Your task to perform on an android device: Go to notification settings Image 0: 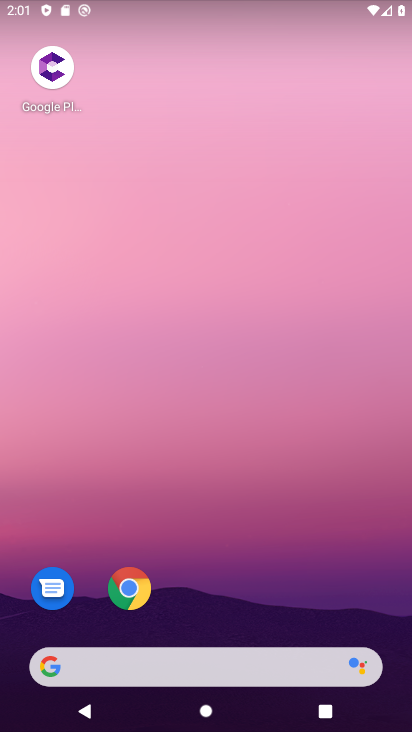
Step 0: drag from (243, 675) to (403, 122)
Your task to perform on an android device: Go to notification settings Image 1: 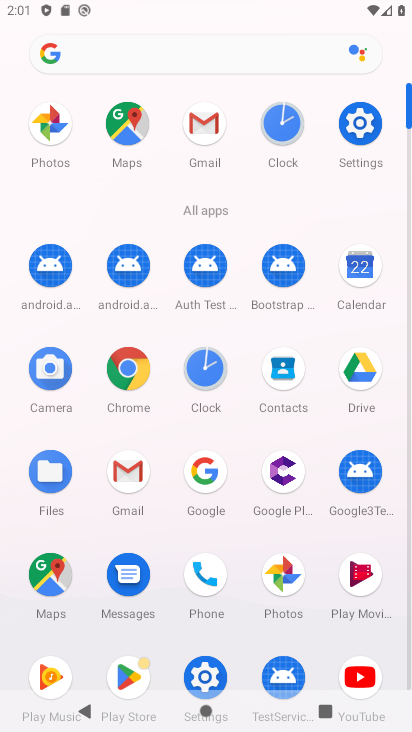
Step 1: click (360, 145)
Your task to perform on an android device: Go to notification settings Image 2: 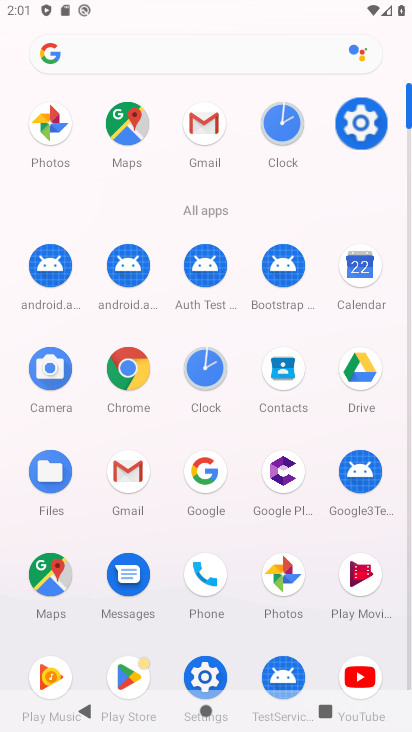
Step 2: click (360, 145)
Your task to perform on an android device: Go to notification settings Image 3: 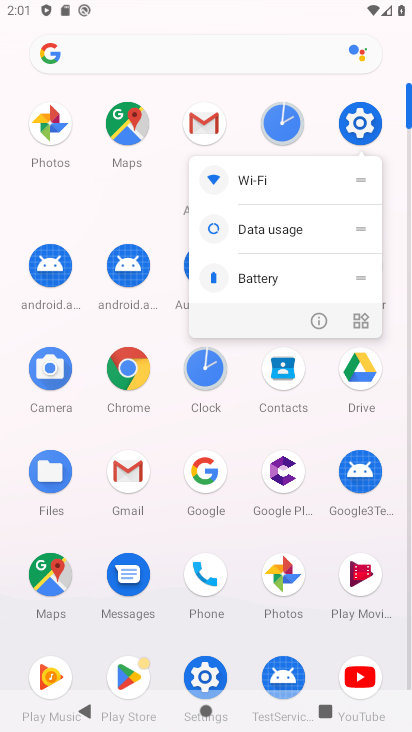
Step 3: click (109, 196)
Your task to perform on an android device: Go to notification settings Image 4: 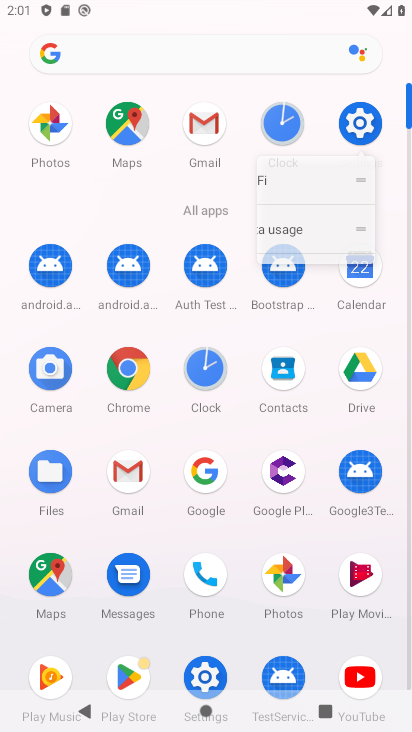
Step 4: click (109, 196)
Your task to perform on an android device: Go to notification settings Image 5: 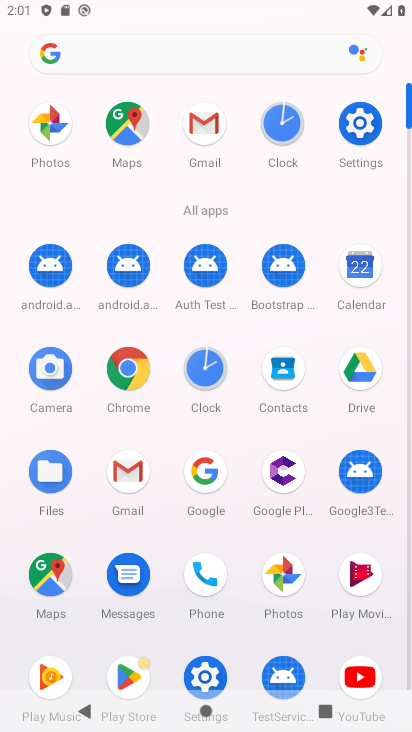
Step 5: click (106, 197)
Your task to perform on an android device: Go to notification settings Image 6: 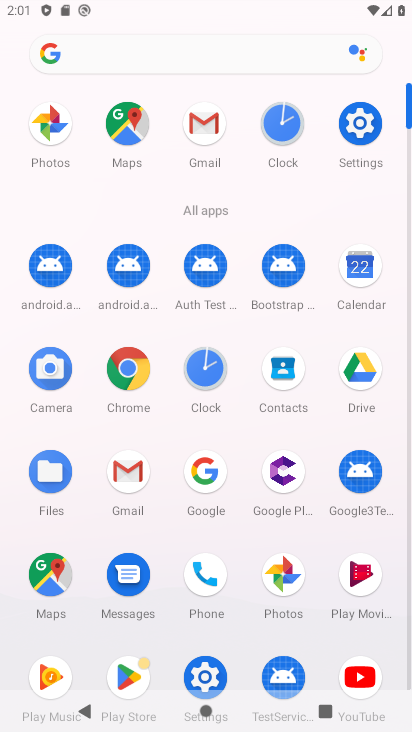
Step 6: click (360, 125)
Your task to perform on an android device: Go to notification settings Image 7: 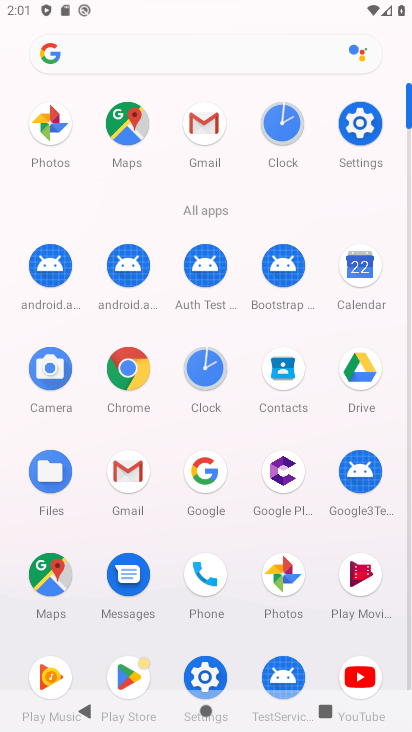
Step 7: click (360, 124)
Your task to perform on an android device: Go to notification settings Image 8: 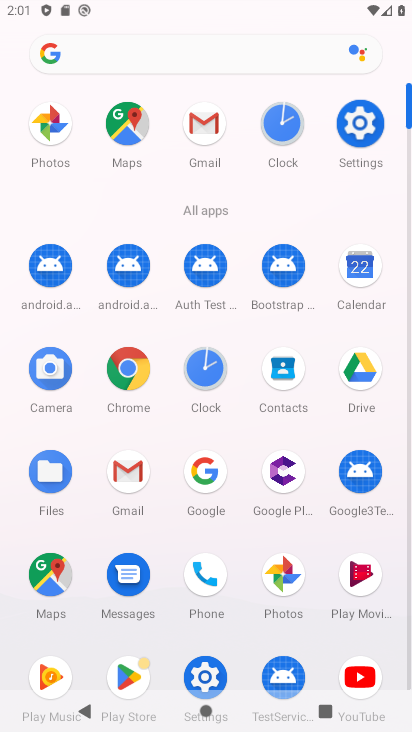
Step 8: click (360, 123)
Your task to perform on an android device: Go to notification settings Image 9: 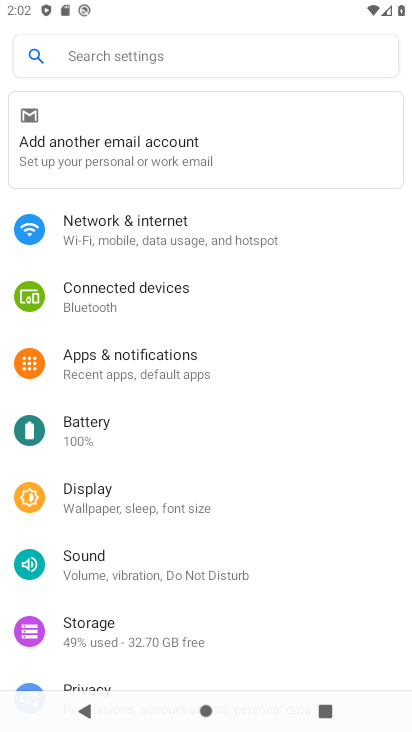
Step 9: click (150, 372)
Your task to perform on an android device: Go to notification settings Image 10: 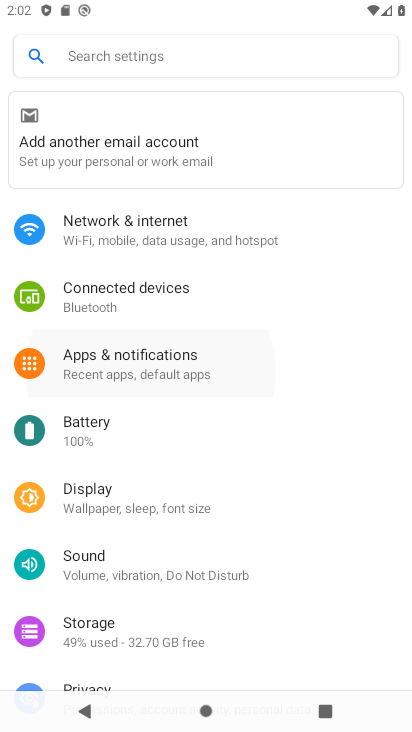
Step 10: click (149, 371)
Your task to perform on an android device: Go to notification settings Image 11: 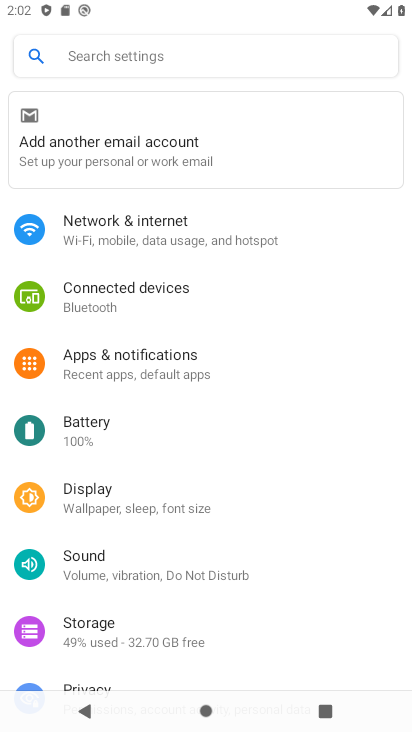
Step 11: click (131, 346)
Your task to perform on an android device: Go to notification settings Image 12: 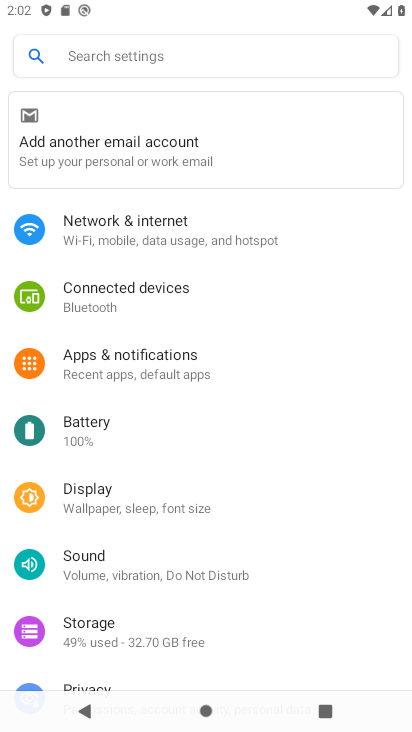
Step 12: click (131, 346)
Your task to perform on an android device: Go to notification settings Image 13: 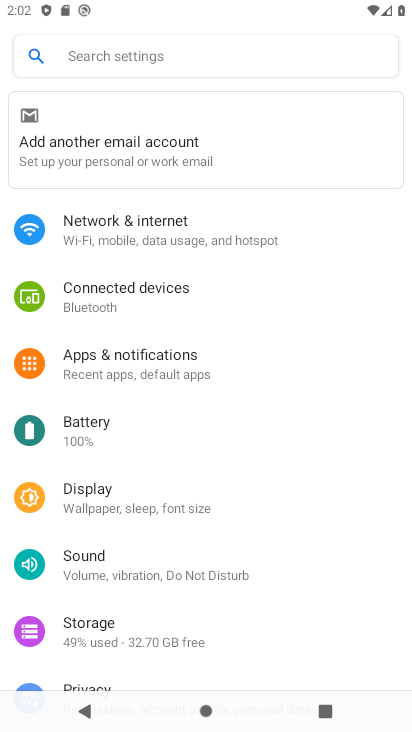
Step 13: click (131, 346)
Your task to perform on an android device: Go to notification settings Image 14: 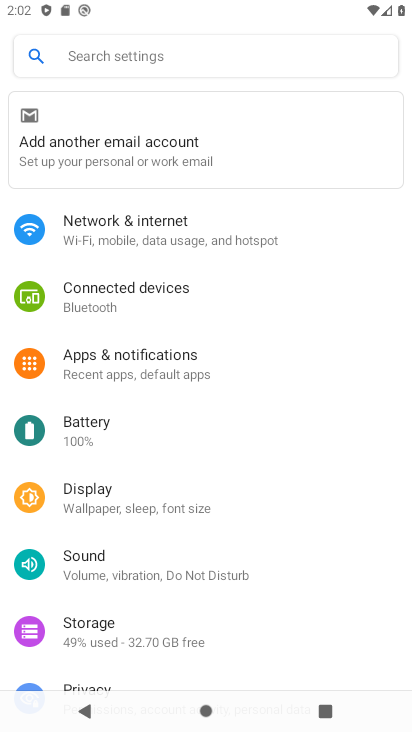
Step 14: click (131, 346)
Your task to perform on an android device: Go to notification settings Image 15: 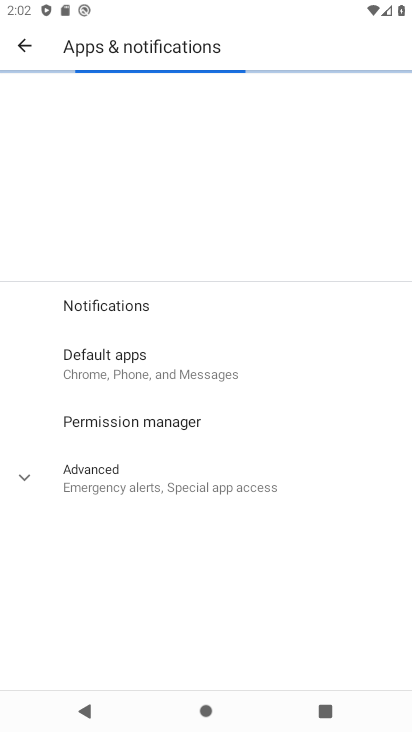
Step 15: click (131, 346)
Your task to perform on an android device: Go to notification settings Image 16: 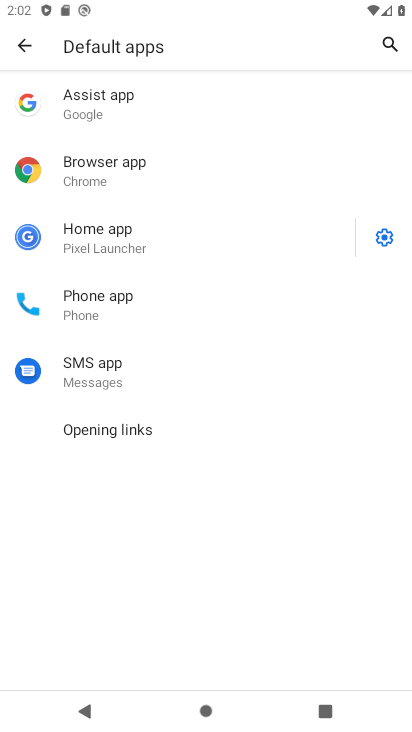
Step 16: click (18, 44)
Your task to perform on an android device: Go to notification settings Image 17: 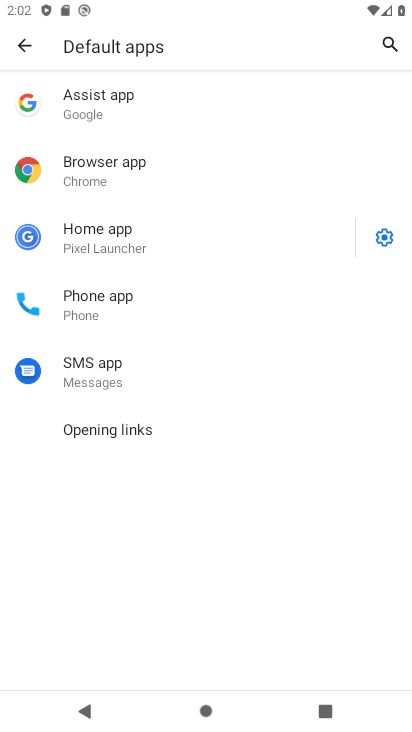
Step 17: click (23, 42)
Your task to perform on an android device: Go to notification settings Image 18: 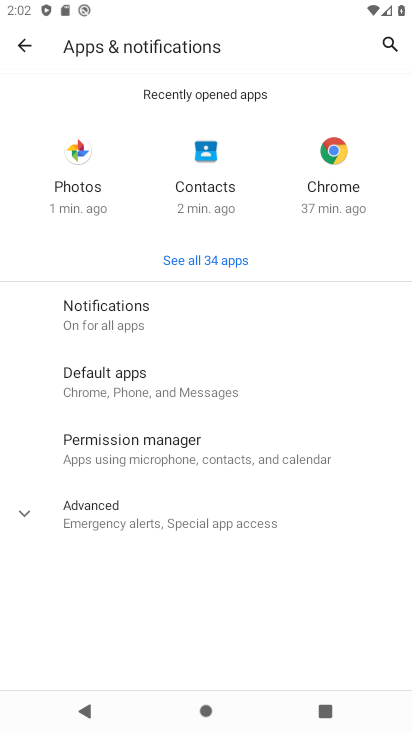
Step 18: click (96, 315)
Your task to perform on an android device: Go to notification settings Image 19: 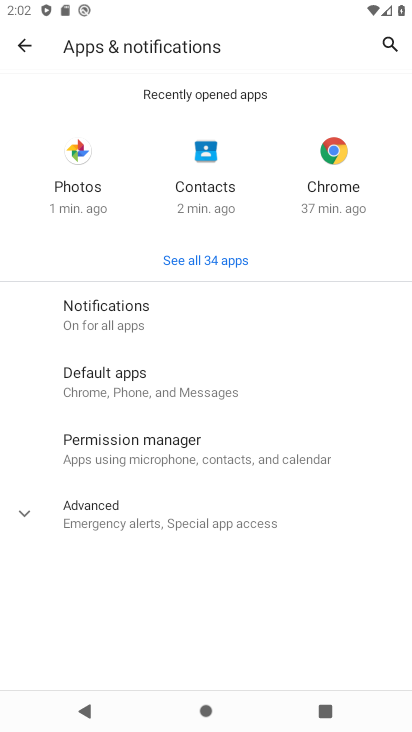
Step 19: click (95, 317)
Your task to perform on an android device: Go to notification settings Image 20: 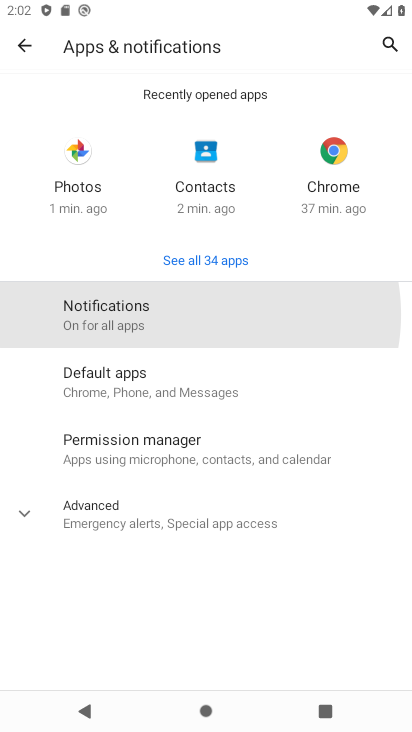
Step 20: click (95, 319)
Your task to perform on an android device: Go to notification settings Image 21: 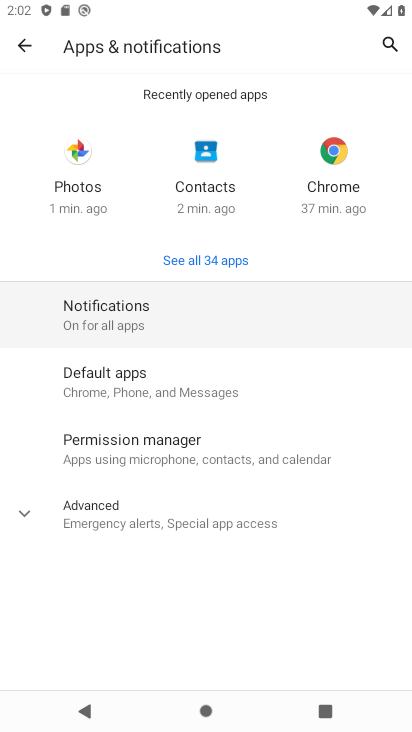
Step 21: click (95, 319)
Your task to perform on an android device: Go to notification settings Image 22: 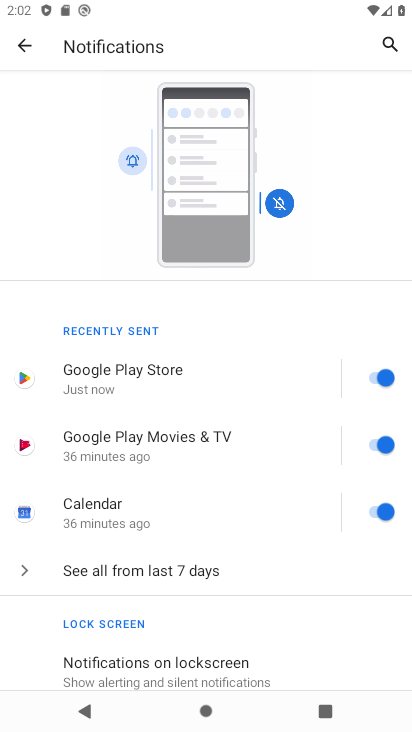
Step 22: drag from (168, 512) to (230, 275)
Your task to perform on an android device: Go to notification settings Image 23: 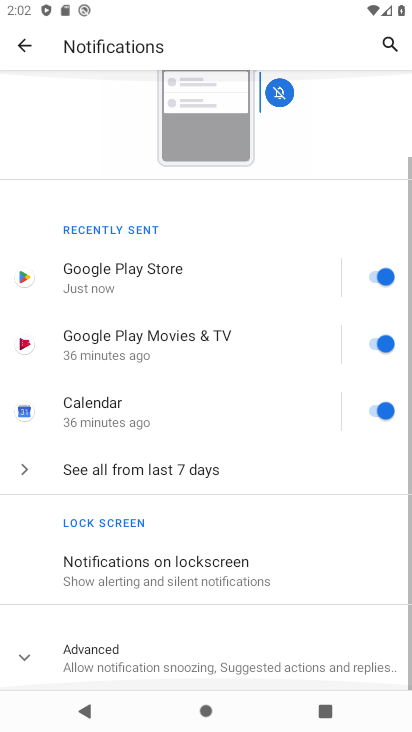
Step 23: click (174, 276)
Your task to perform on an android device: Go to notification settings Image 24: 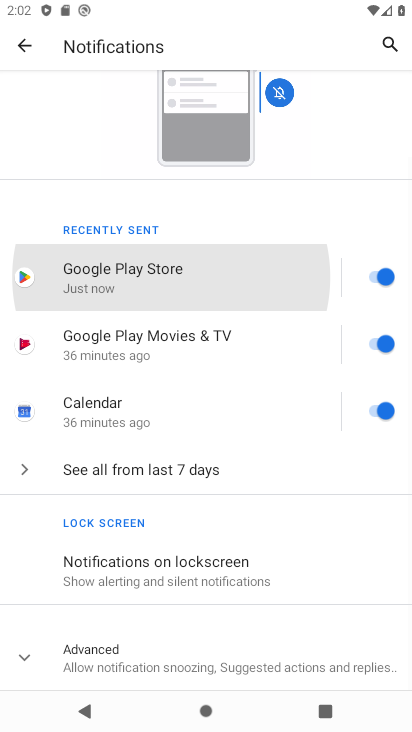
Step 24: task complete